Your task to perform on an android device: set the timer Image 0: 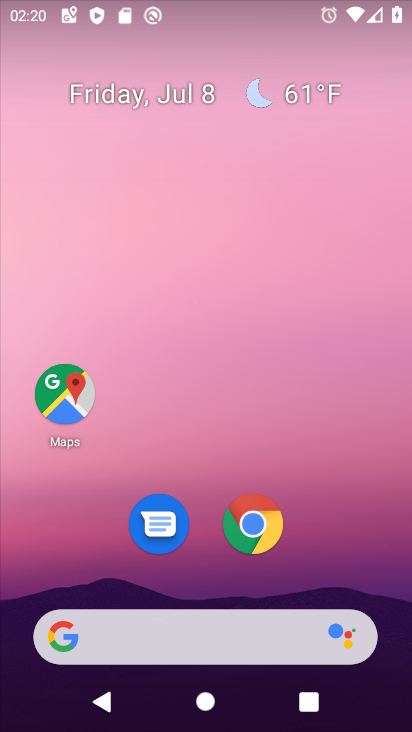
Step 0: drag from (352, 549) to (294, 78)
Your task to perform on an android device: set the timer Image 1: 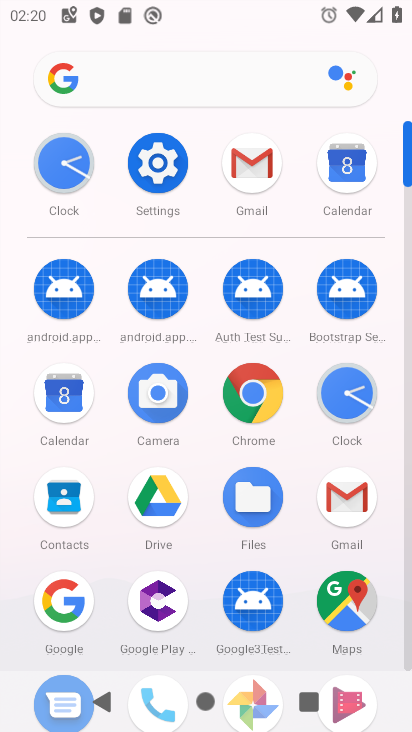
Step 1: click (59, 150)
Your task to perform on an android device: set the timer Image 2: 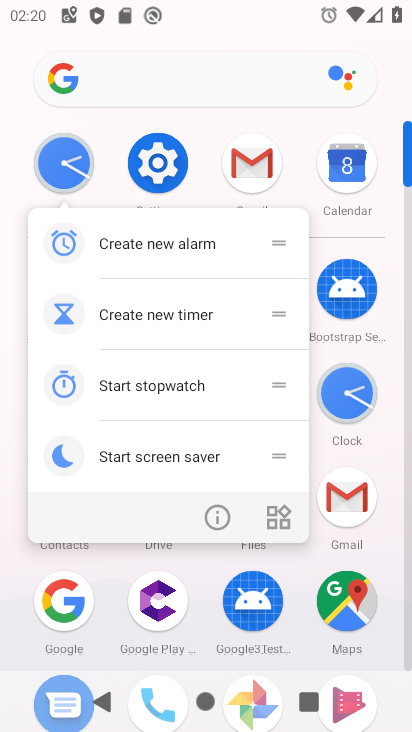
Step 2: click (59, 148)
Your task to perform on an android device: set the timer Image 3: 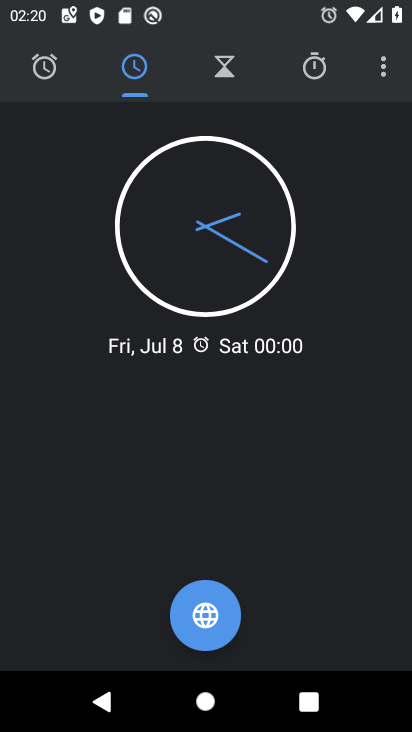
Step 3: click (232, 76)
Your task to perform on an android device: set the timer Image 4: 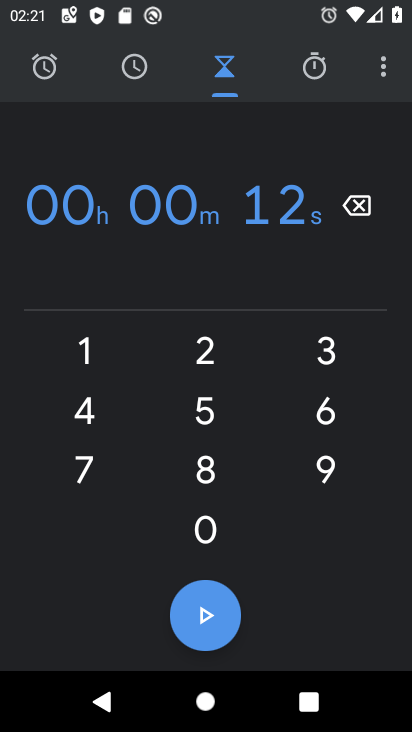
Step 4: click (85, 350)
Your task to perform on an android device: set the timer Image 5: 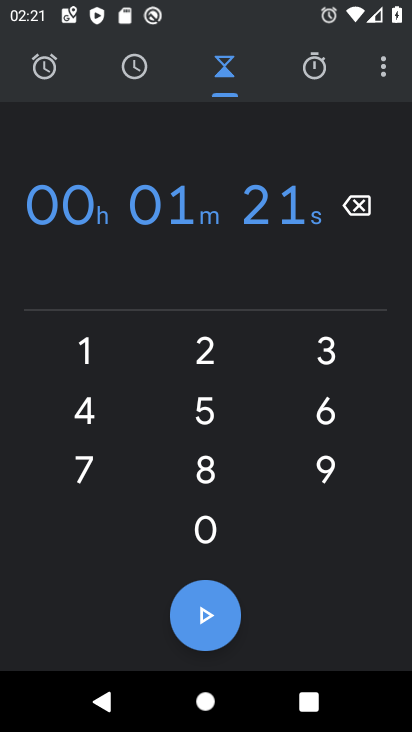
Step 5: task complete